Your task to perform on an android device: Search for pizza restaurants on Maps Image 0: 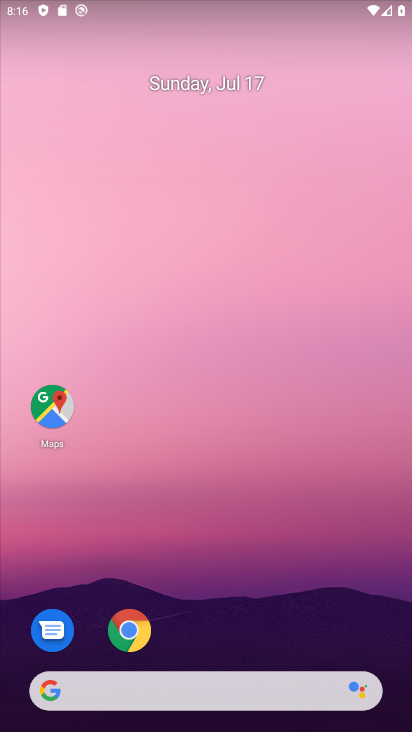
Step 0: drag from (340, 611) to (365, 112)
Your task to perform on an android device: Search for pizza restaurants on Maps Image 1: 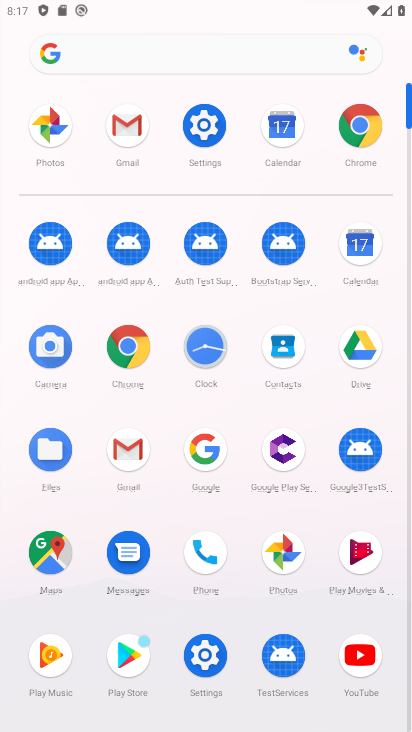
Step 1: click (47, 556)
Your task to perform on an android device: Search for pizza restaurants on Maps Image 2: 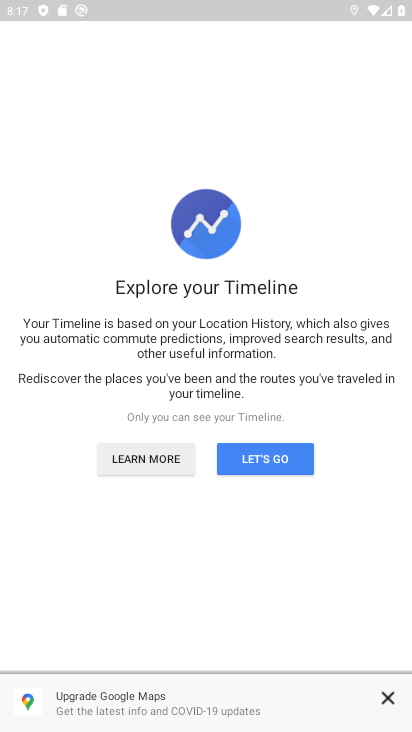
Step 2: press back button
Your task to perform on an android device: Search for pizza restaurants on Maps Image 3: 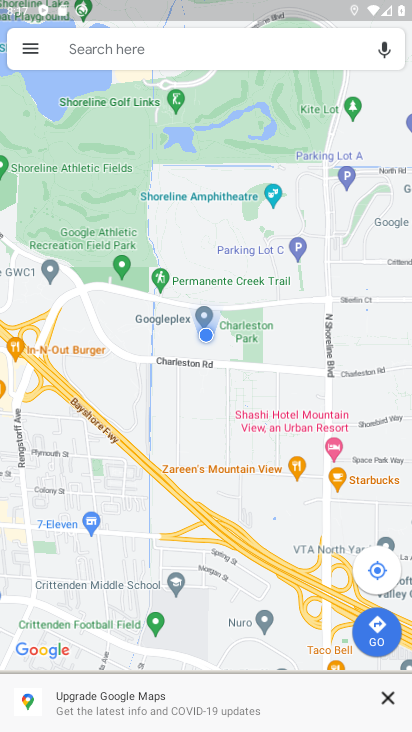
Step 3: click (177, 46)
Your task to perform on an android device: Search for pizza restaurants on Maps Image 4: 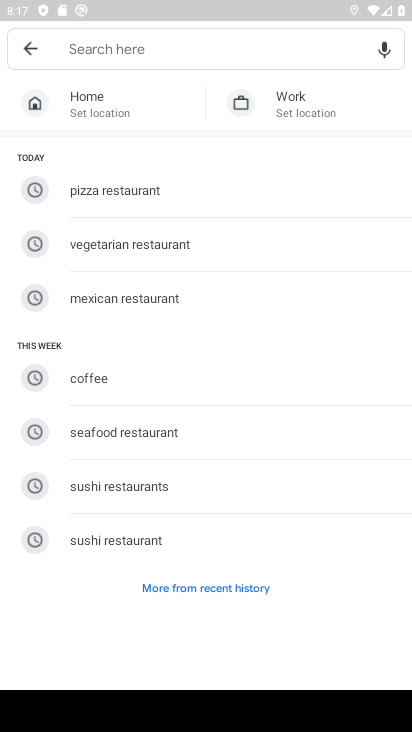
Step 4: type "pizza restaurants"
Your task to perform on an android device: Search for pizza restaurants on Maps Image 5: 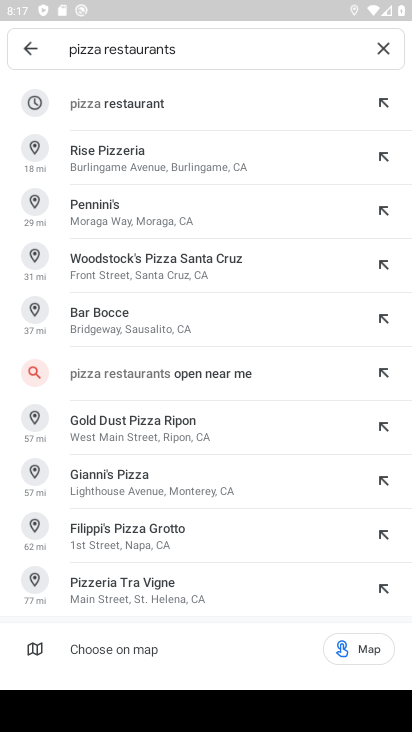
Step 5: click (293, 111)
Your task to perform on an android device: Search for pizza restaurants on Maps Image 6: 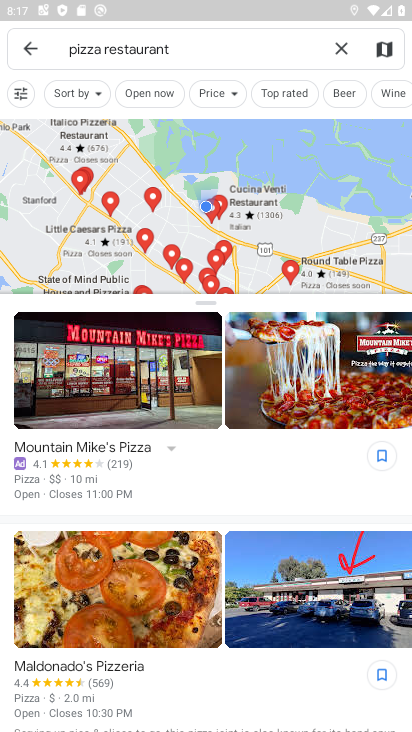
Step 6: task complete